Your task to perform on an android device: turn on location history Image 0: 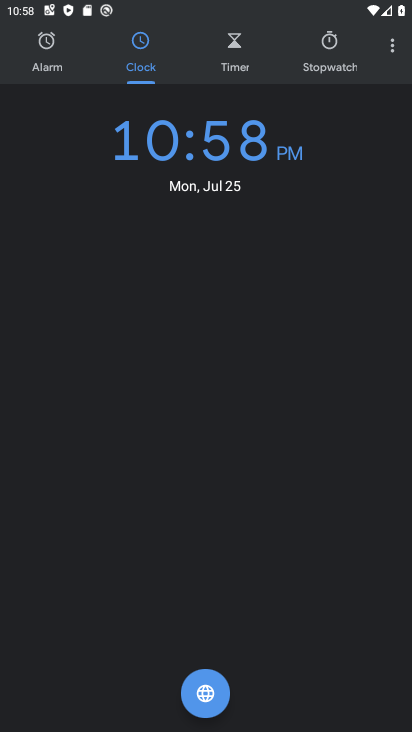
Step 0: press home button
Your task to perform on an android device: turn on location history Image 1: 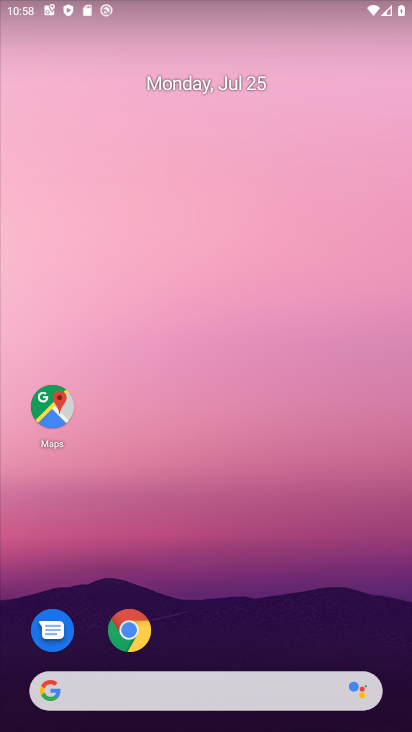
Step 1: drag from (304, 610) to (309, 417)
Your task to perform on an android device: turn on location history Image 2: 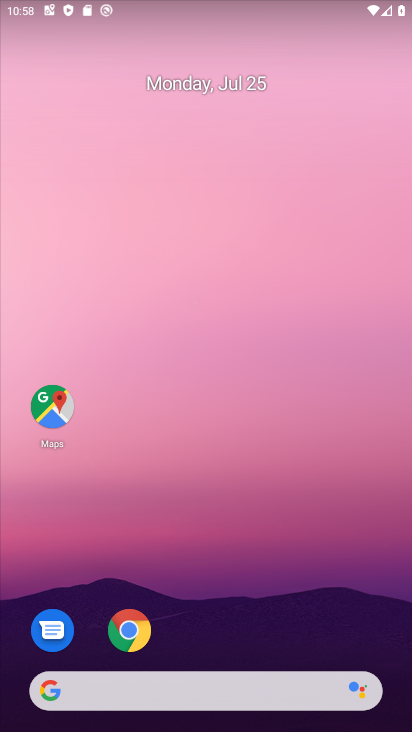
Step 2: drag from (314, 569) to (318, 176)
Your task to perform on an android device: turn on location history Image 3: 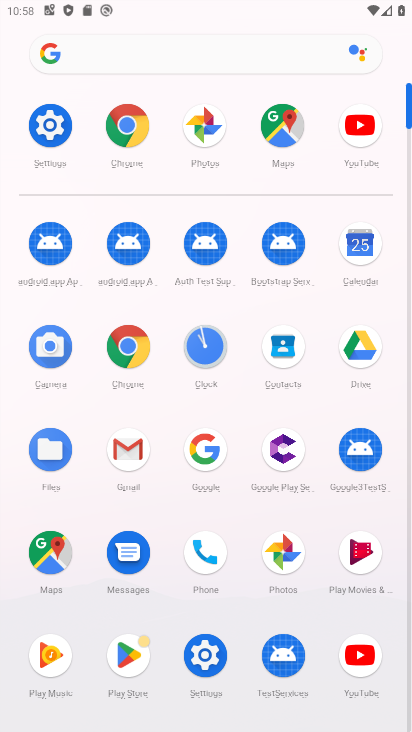
Step 3: click (55, 128)
Your task to perform on an android device: turn on location history Image 4: 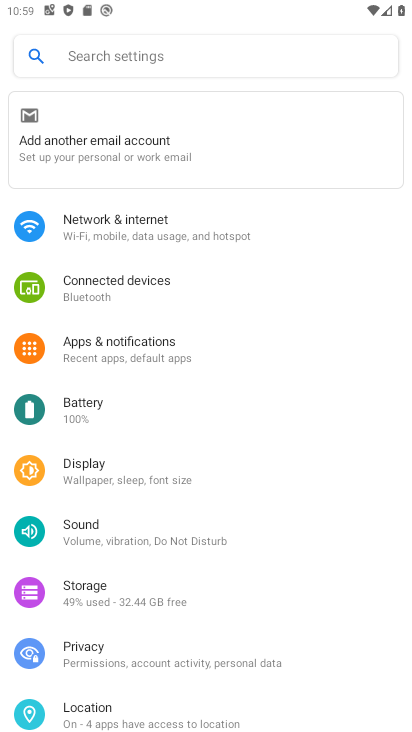
Step 4: drag from (333, 465) to (340, 375)
Your task to perform on an android device: turn on location history Image 5: 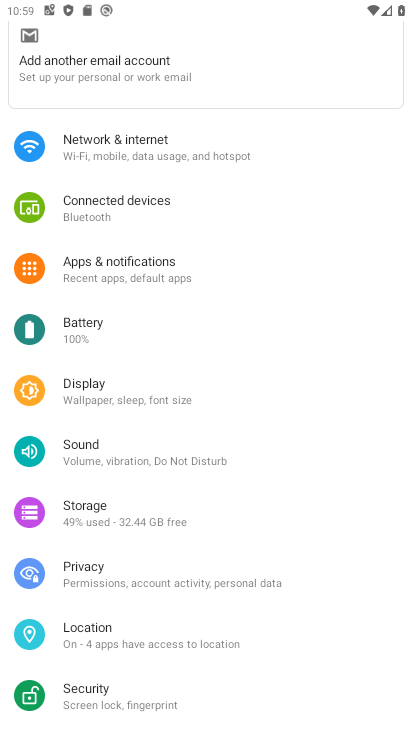
Step 5: drag from (341, 487) to (346, 397)
Your task to perform on an android device: turn on location history Image 6: 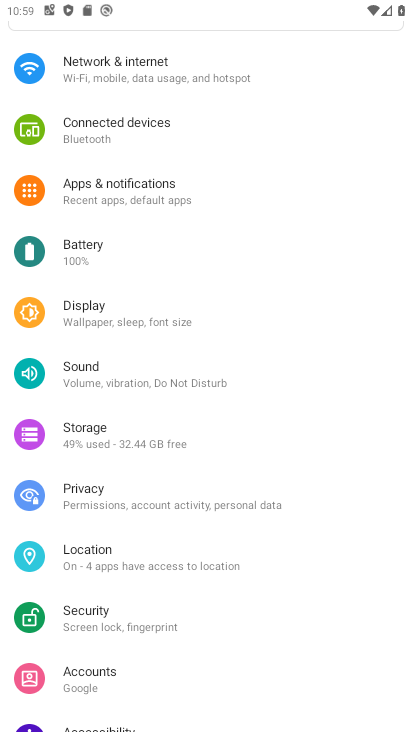
Step 6: drag from (351, 503) to (346, 409)
Your task to perform on an android device: turn on location history Image 7: 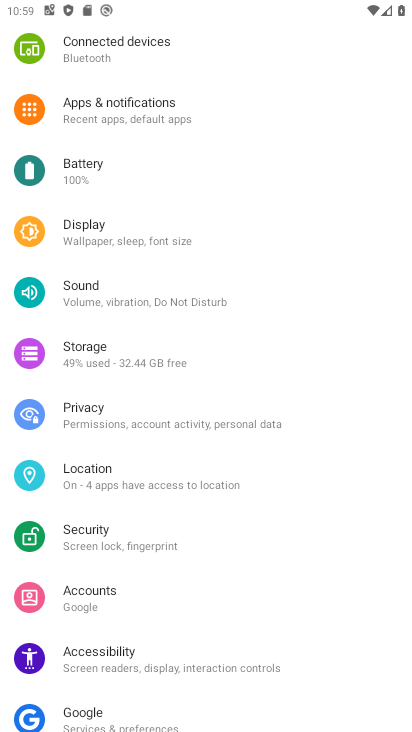
Step 7: drag from (325, 525) to (329, 364)
Your task to perform on an android device: turn on location history Image 8: 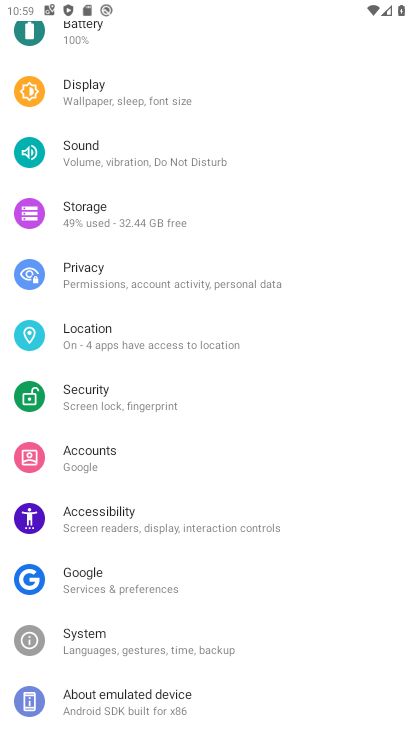
Step 8: drag from (332, 484) to (332, 347)
Your task to perform on an android device: turn on location history Image 9: 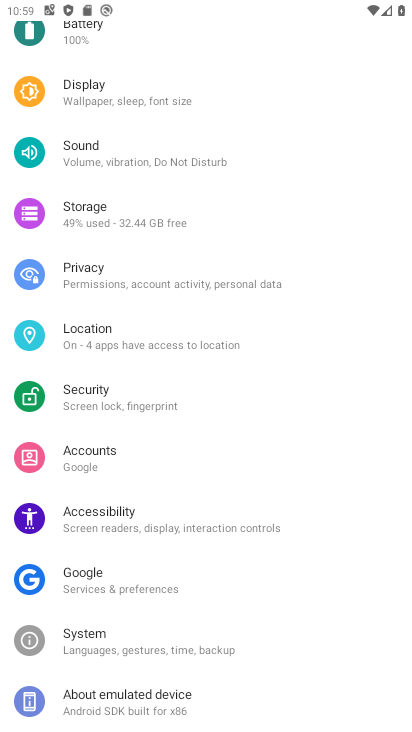
Step 9: click (260, 344)
Your task to perform on an android device: turn on location history Image 10: 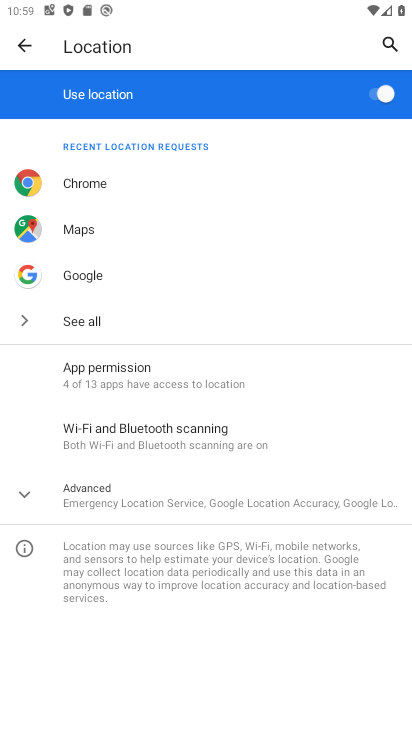
Step 10: click (260, 491)
Your task to perform on an android device: turn on location history Image 11: 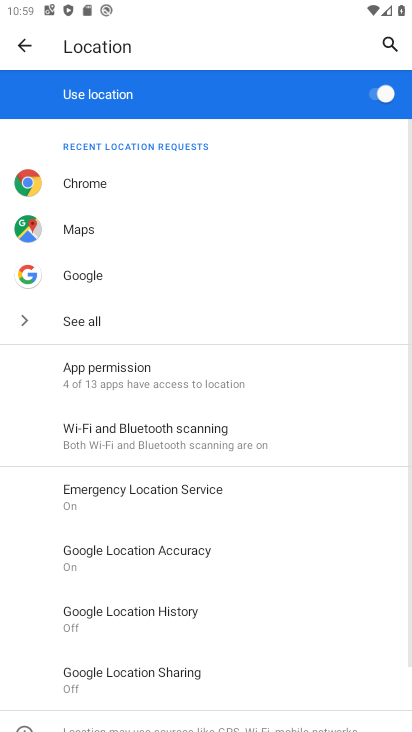
Step 11: drag from (314, 554) to (331, 468)
Your task to perform on an android device: turn on location history Image 12: 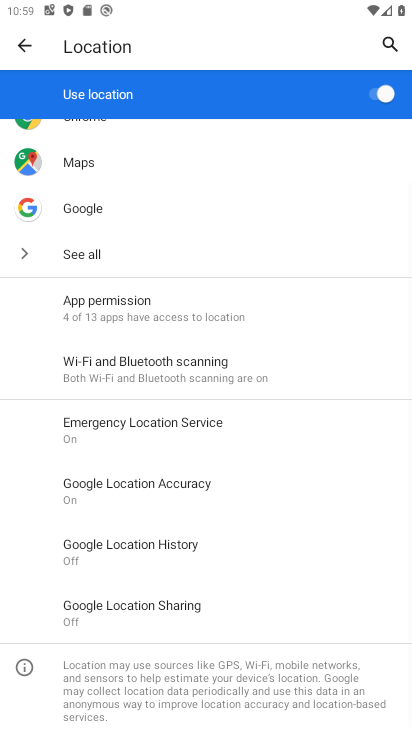
Step 12: drag from (338, 576) to (342, 475)
Your task to perform on an android device: turn on location history Image 13: 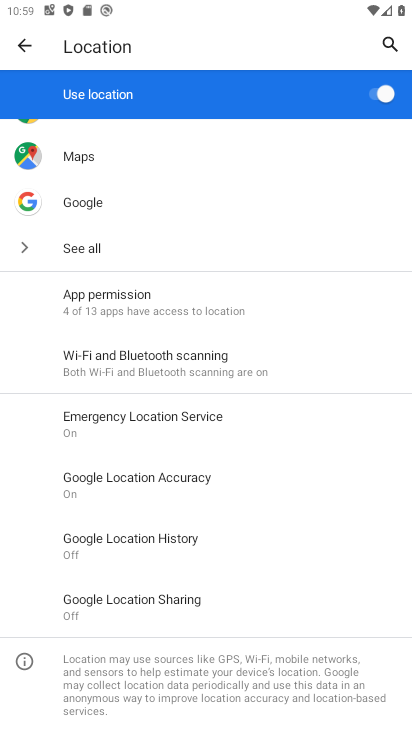
Step 13: click (183, 550)
Your task to perform on an android device: turn on location history Image 14: 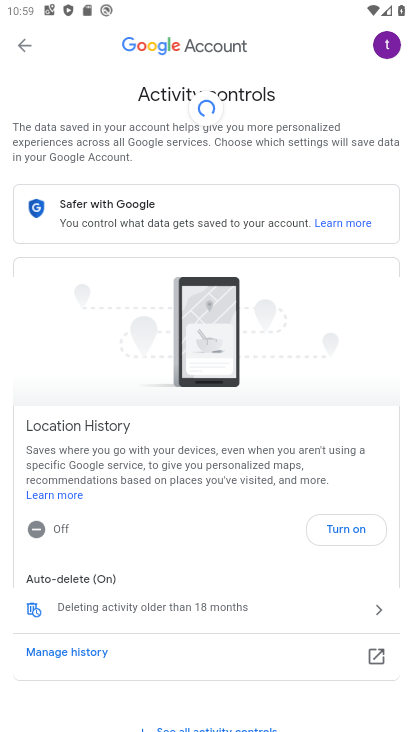
Step 14: click (346, 527)
Your task to perform on an android device: turn on location history Image 15: 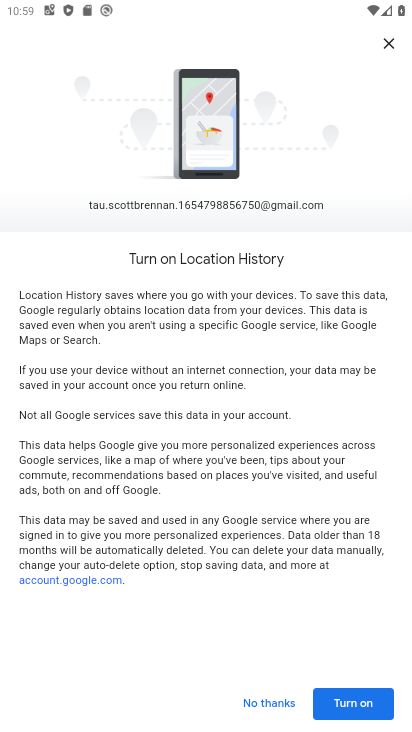
Step 15: click (359, 703)
Your task to perform on an android device: turn on location history Image 16: 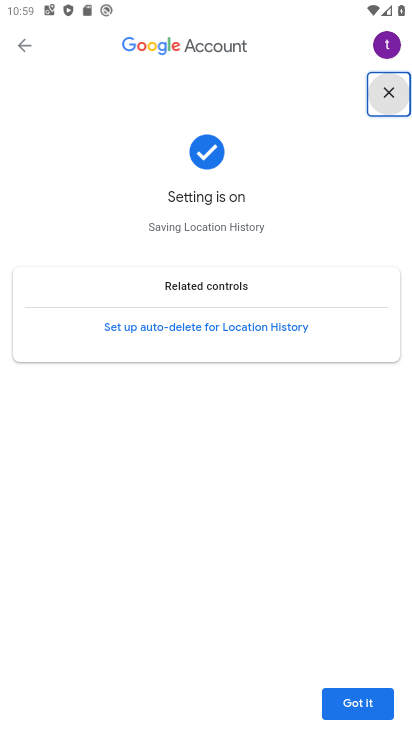
Step 16: task complete